Your task to perform on an android device: Open notification settings Image 0: 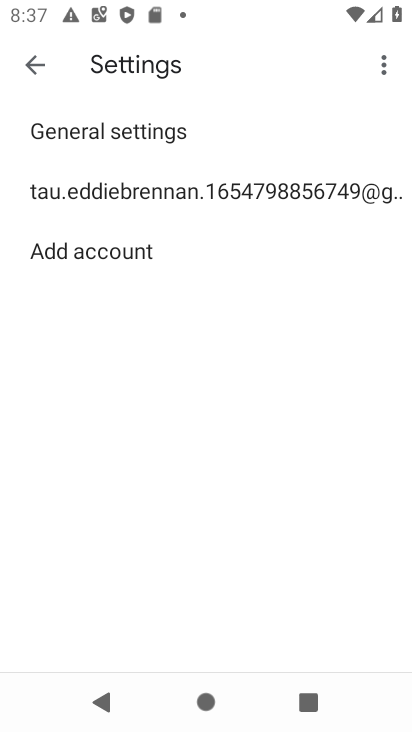
Step 0: press home button
Your task to perform on an android device: Open notification settings Image 1: 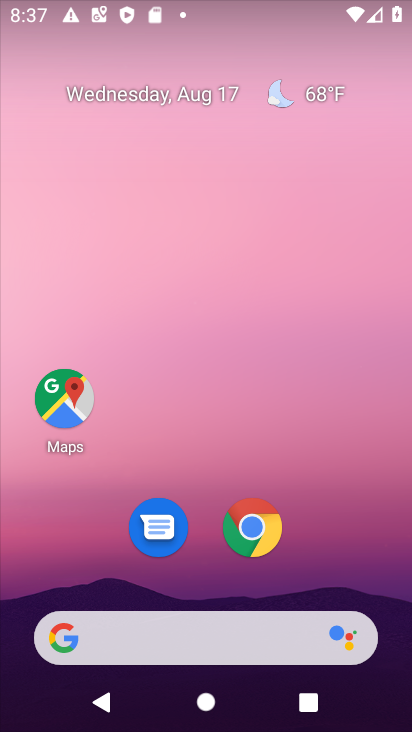
Step 1: drag from (202, 578) to (180, 55)
Your task to perform on an android device: Open notification settings Image 2: 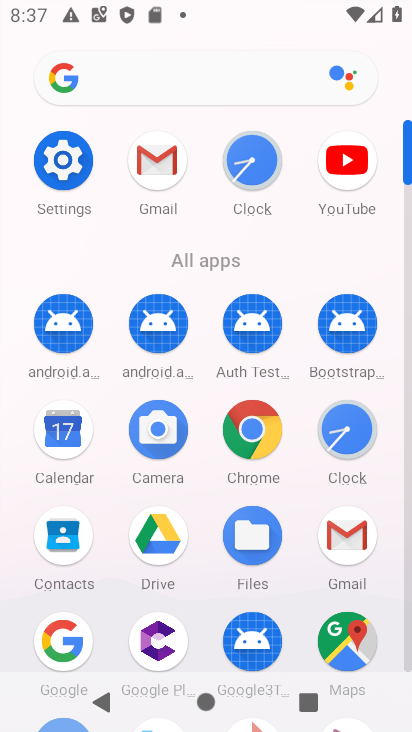
Step 2: click (81, 135)
Your task to perform on an android device: Open notification settings Image 3: 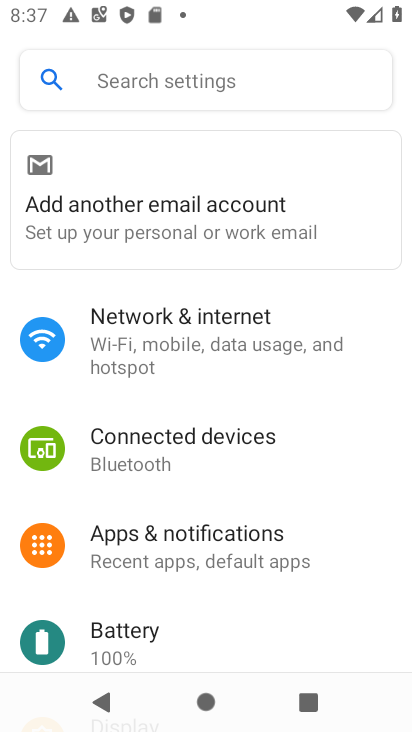
Step 3: click (136, 569)
Your task to perform on an android device: Open notification settings Image 4: 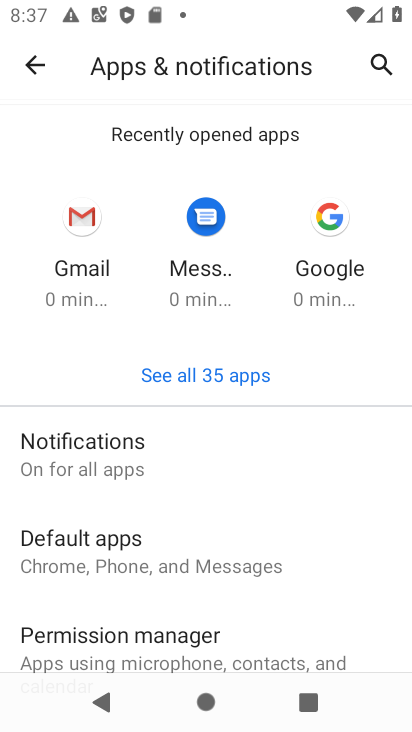
Step 4: task complete